Your task to perform on an android device: turn on translation in the chrome app Image 0: 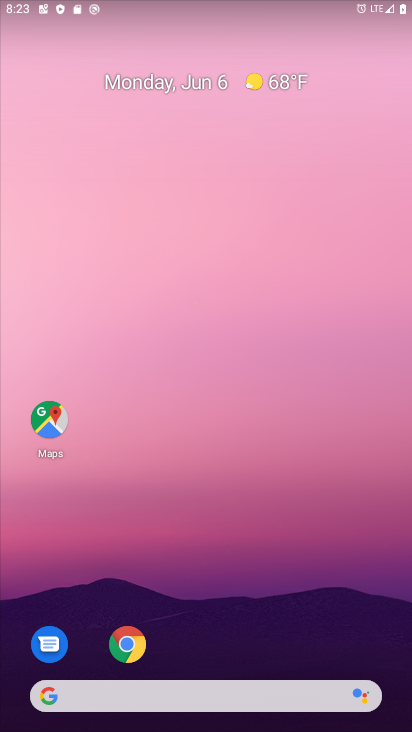
Step 0: drag from (195, 713) to (249, 259)
Your task to perform on an android device: turn on translation in the chrome app Image 1: 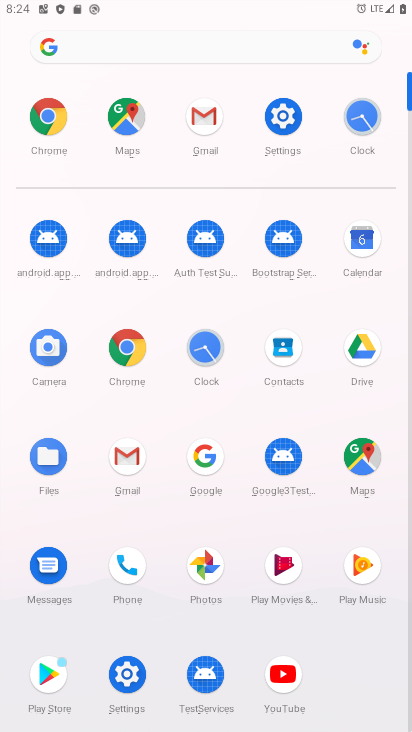
Step 1: click (65, 137)
Your task to perform on an android device: turn on translation in the chrome app Image 2: 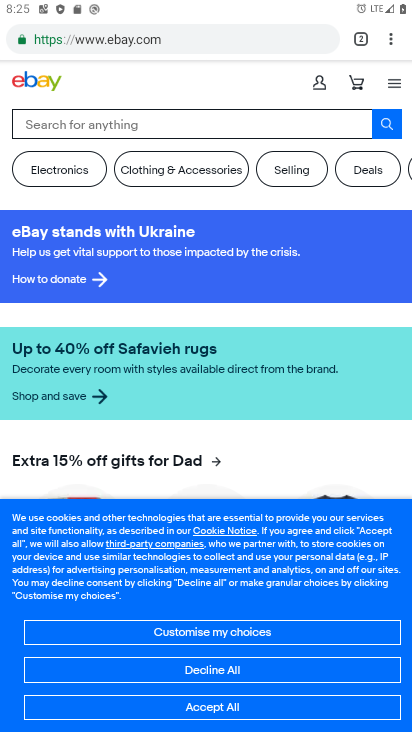
Step 2: click (389, 52)
Your task to perform on an android device: turn on translation in the chrome app Image 3: 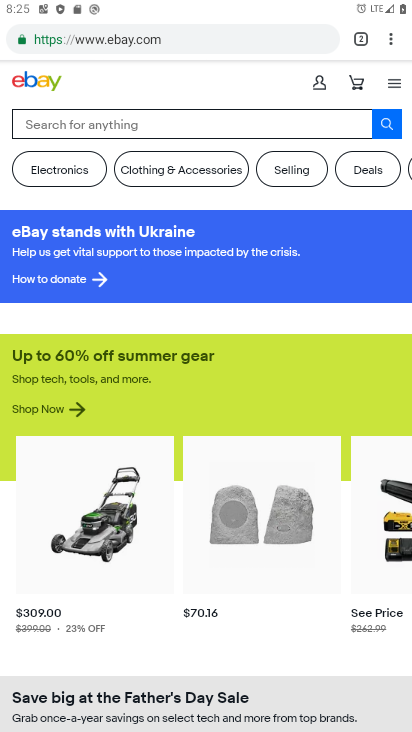
Step 3: click (386, 47)
Your task to perform on an android device: turn on translation in the chrome app Image 4: 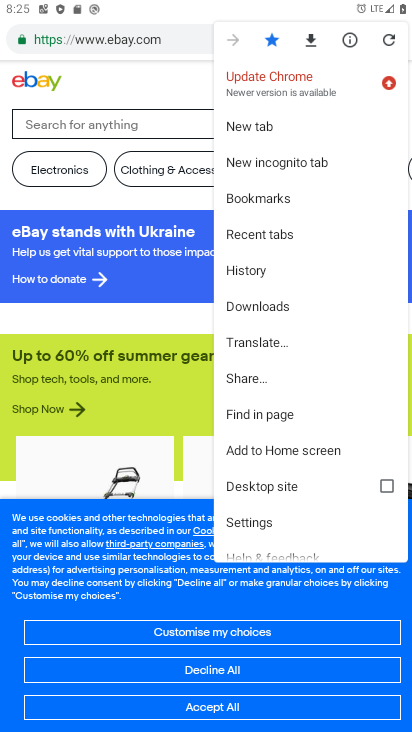
Step 4: click (250, 523)
Your task to perform on an android device: turn on translation in the chrome app Image 5: 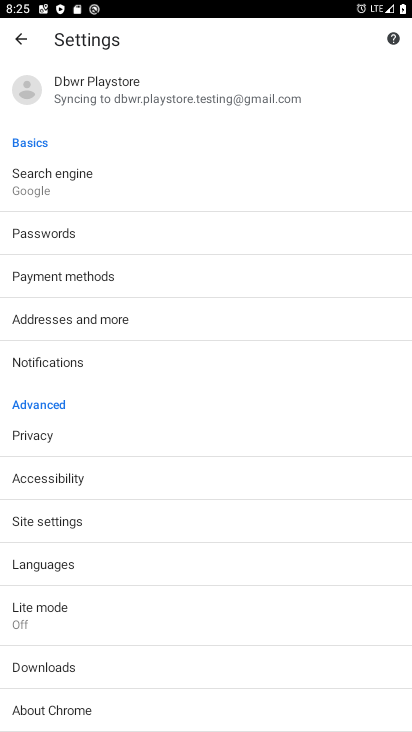
Step 5: click (93, 574)
Your task to perform on an android device: turn on translation in the chrome app Image 6: 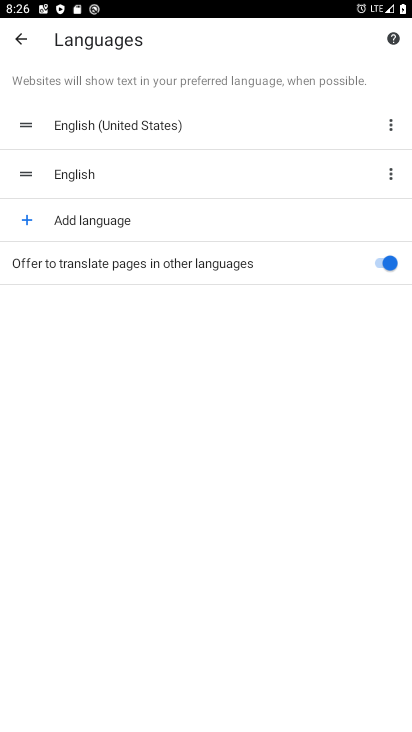
Step 6: task complete